Your task to perform on an android device: Empty the shopping cart on target. Image 0: 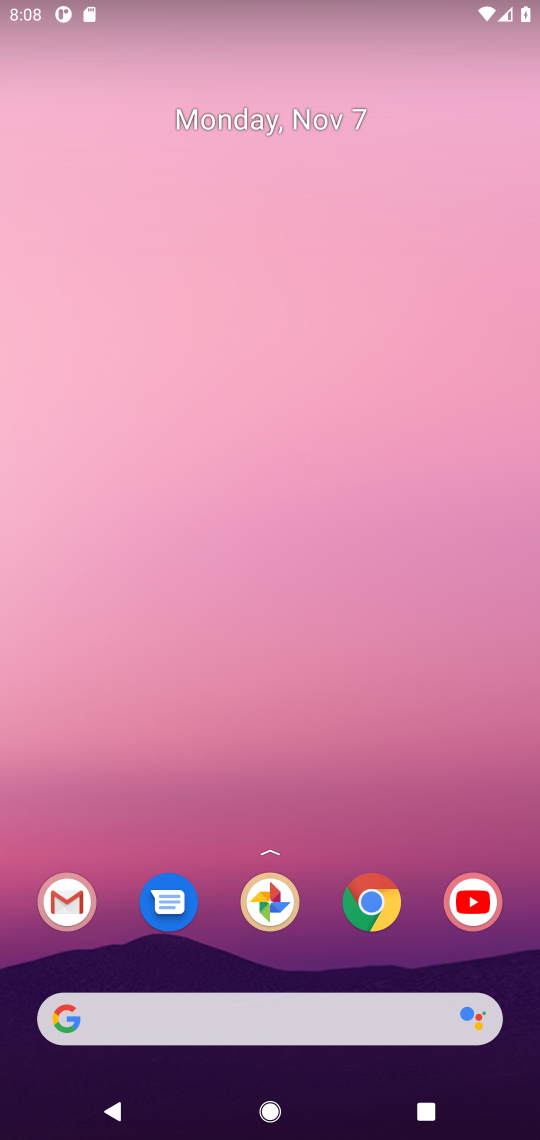
Step 0: click (374, 907)
Your task to perform on an android device: Empty the shopping cart on target. Image 1: 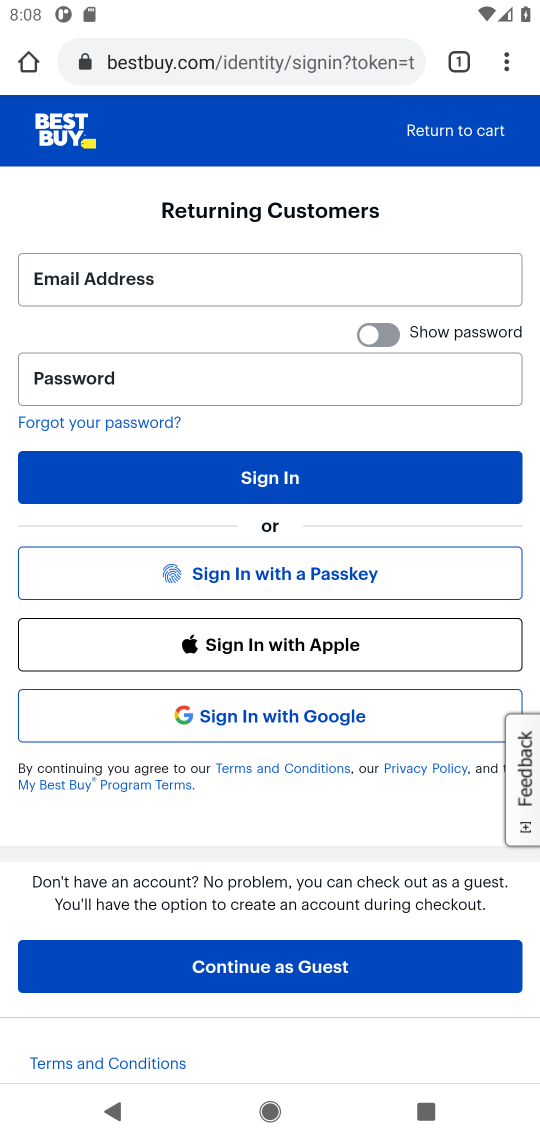
Step 1: click (268, 70)
Your task to perform on an android device: Empty the shopping cart on target. Image 2: 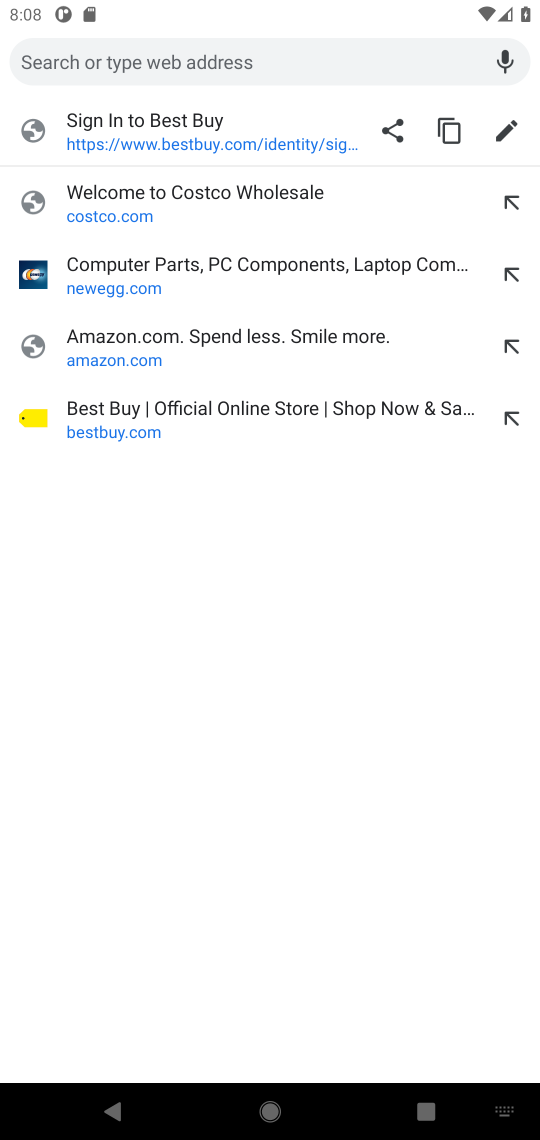
Step 2: type "target.com"
Your task to perform on an android device: Empty the shopping cart on target. Image 3: 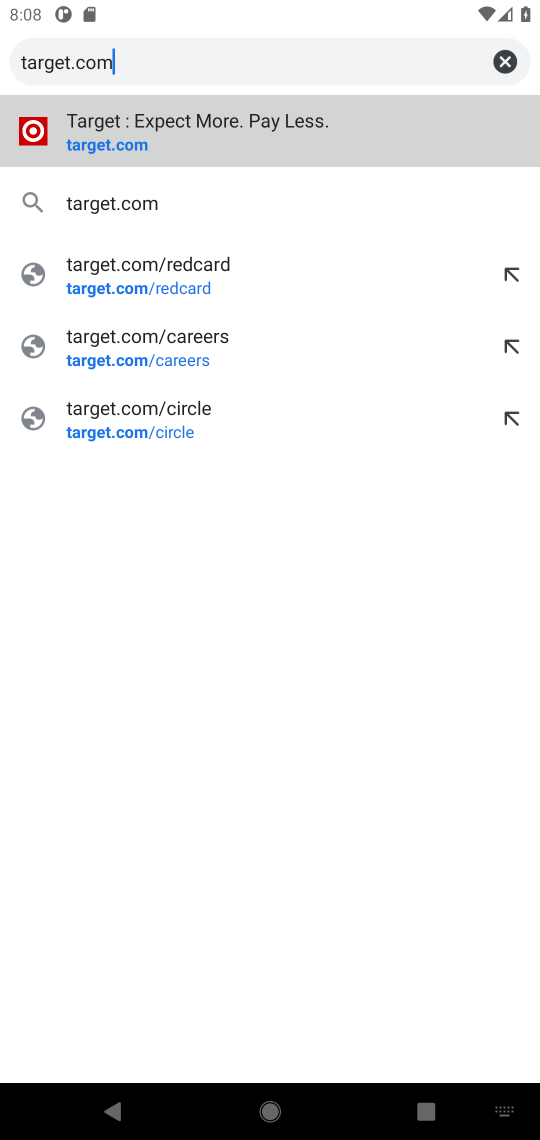
Step 3: click (123, 141)
Your task to perform on an android device: Empty the shopping cart on target. Image 4: 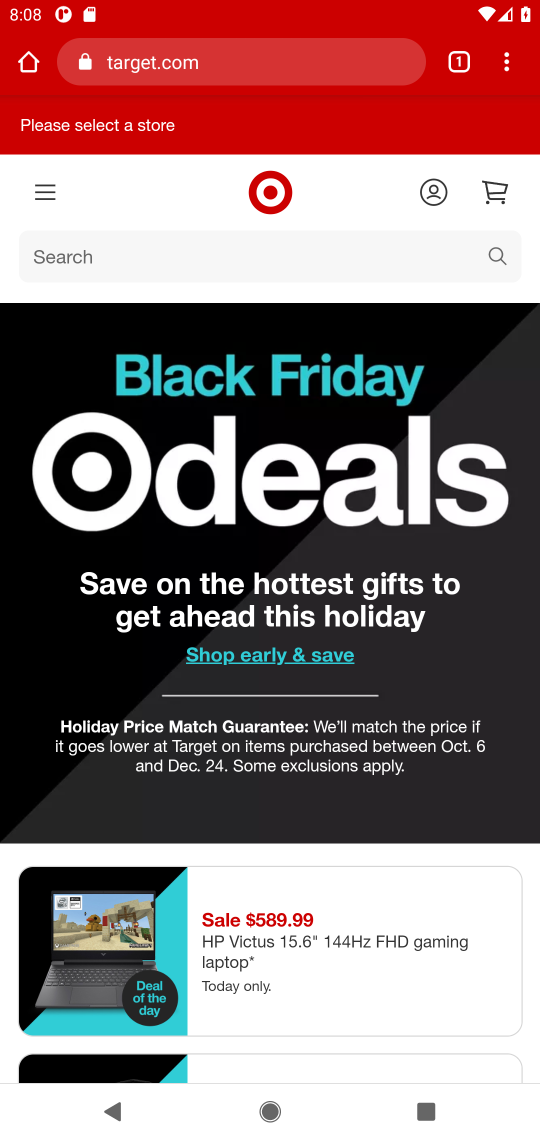
Step 4: click (496, 193)
Your task to perform on an android device: Empty the shopping cart on target. Image 5: 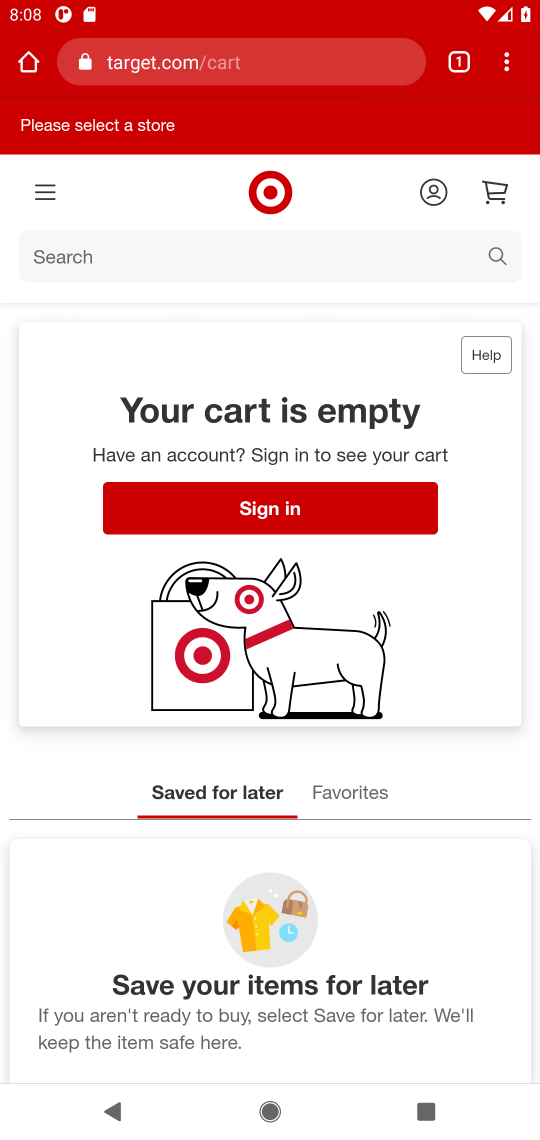
Step 5: task complete